Your task to perform on an android device: turn on showing notifications on the lock screen Image 0: 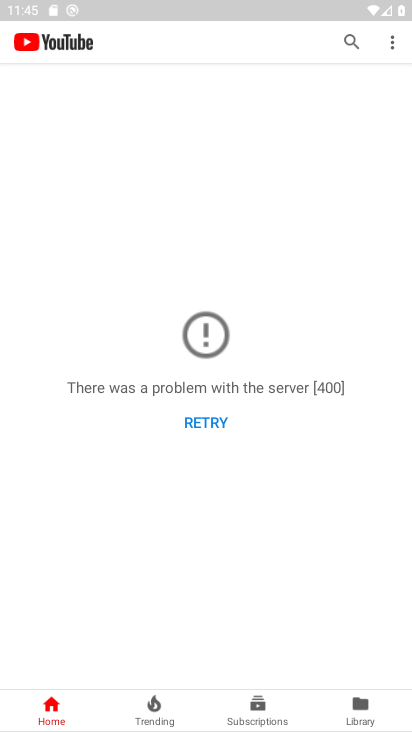
Step 0: press home button
Your task to perform on an android device: turn on showing notifications on the lock screen Image 1: 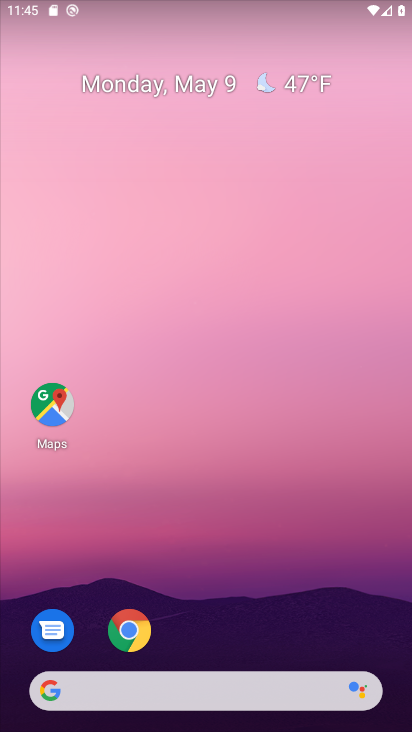
Step 1: drag from (219, 629) to (141, 217)
Your task to perform on an android device: turn on showing notifications on the lock screen Image 2: 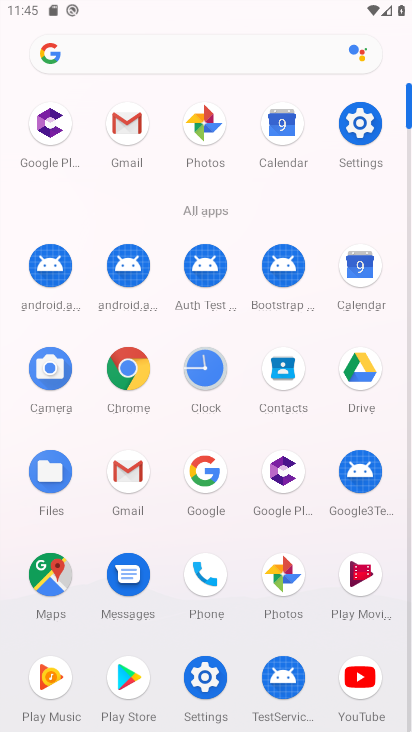
Step 2: click (192, 691)
Your task to perform on an android device: turn on showing notifications on the lock screen Image 3: 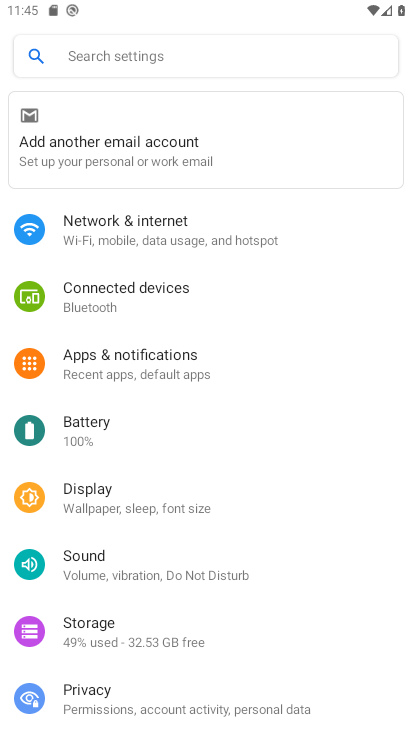
Step 3: click (123, 368)
Your task to perform on an android device: turn on showing notifications on the lock screen Image 4: 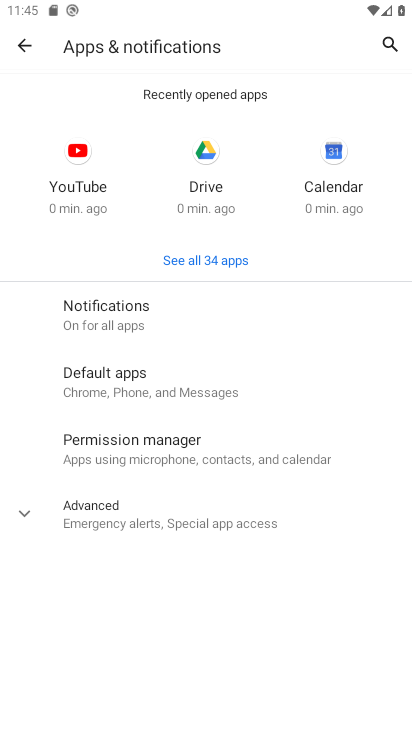
Step 4: click (125, 319)
Your task to perform on an android device: turn on showing notifications on the lock screen Image 5: 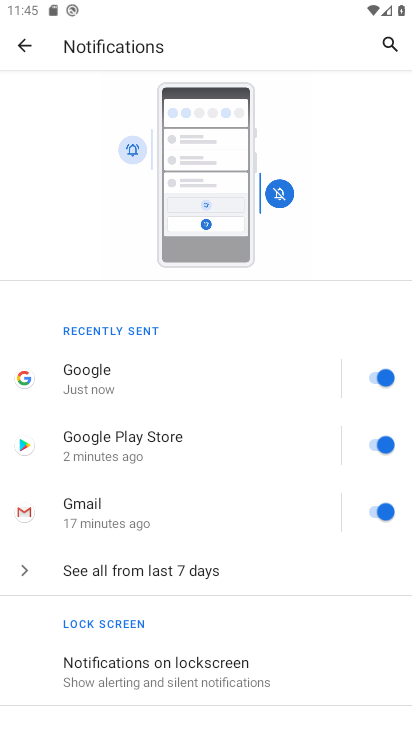
Step 5: click (180, 673)
Your task to perform on an android device: turn on showing notifications on the lock screen Image 6: 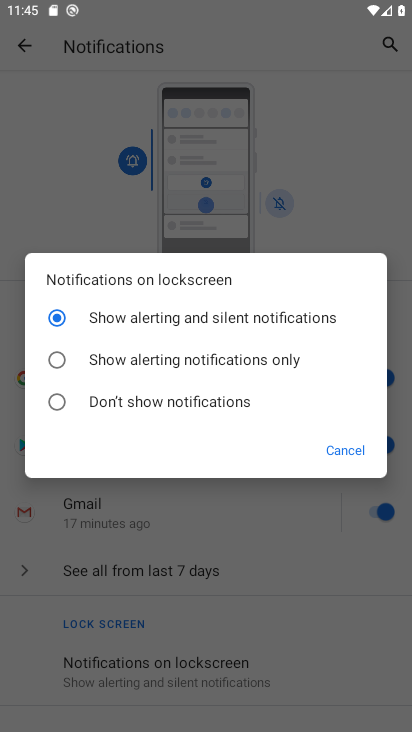
Step 6: task complete